Your task to perform on an android device: toggle pop-ups in chrome Image 0: 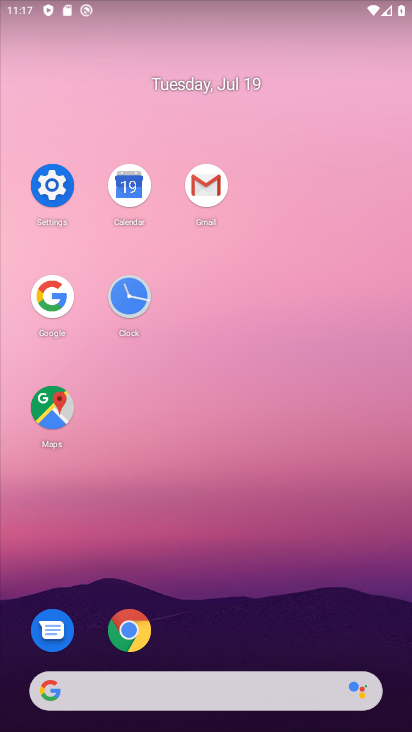
Step 0: click (136, 616)
Your task to perform on an android device: toggle pop-ups in chrome Image 1: 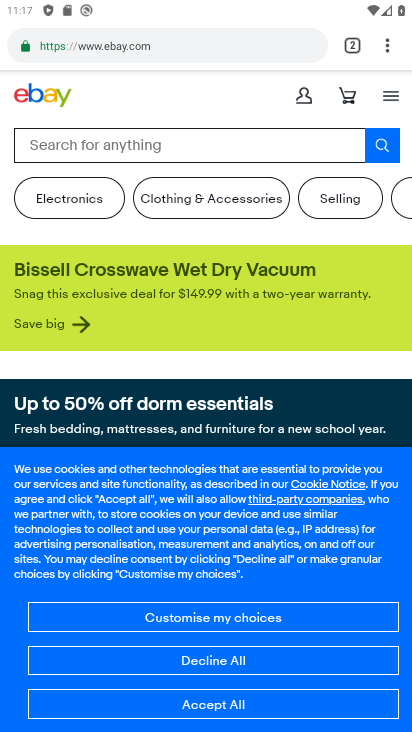
Step 1: click (394, 48)
Your task to perform on an android device: toggle pop-ups in chrome Image 2: 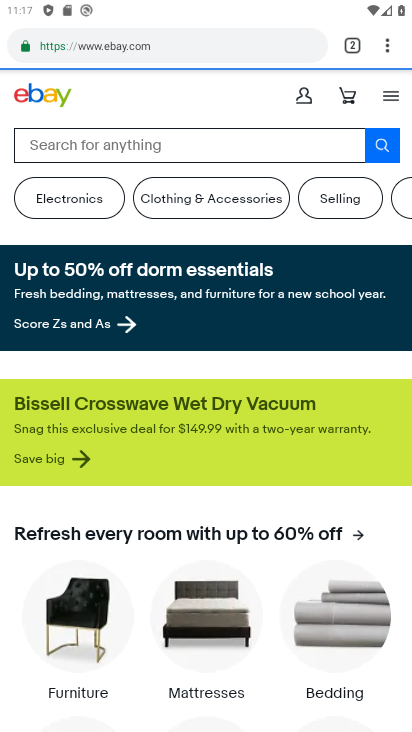
Step 2: click (387, 49)
Your task to perform on an android device: toggle pop-ups in chrome Image 3: 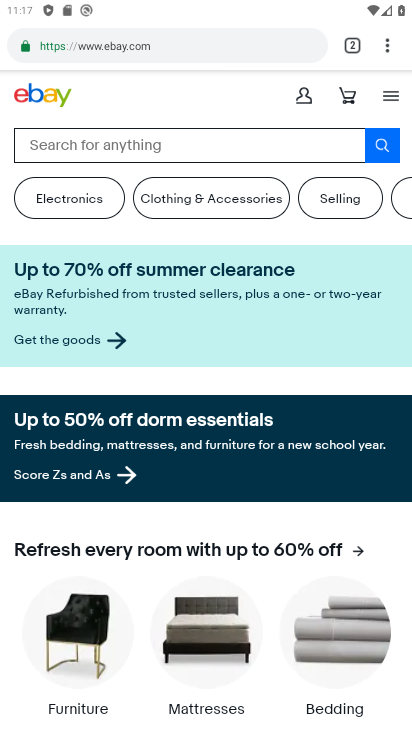
Step 3: click (384, 44)
Your task to perform on an android device: toggle pop-ups in chrome Image 4: 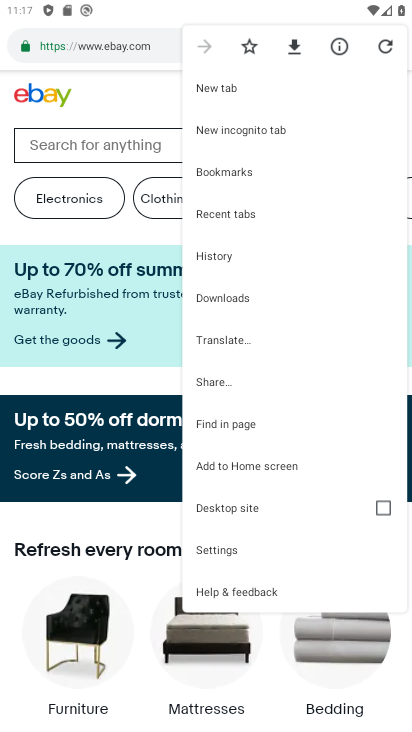
Step 4: click (223, 550)
Your task to perform on an android device: toggle pop-ups in chrome Image 5: 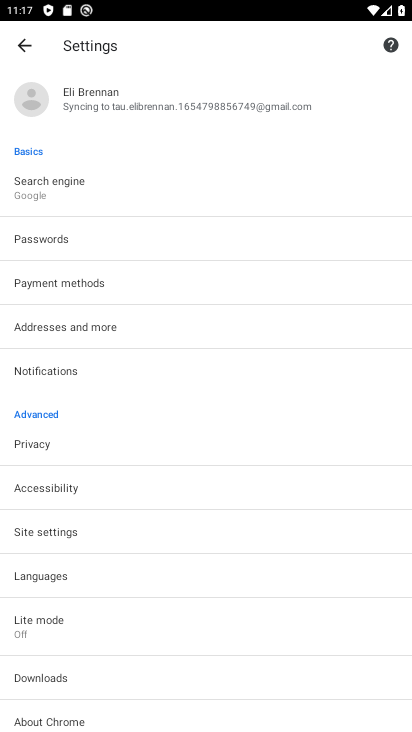
Step 5: drag from (227, 516) to (247, 182)
Your task to perform on an android device: toggle pop-ups in chrome Image 6: 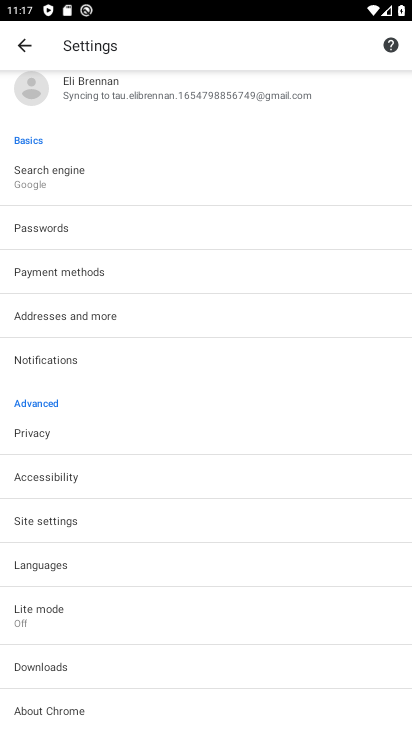
Step 6: click (122, 522)
Your task to perform on an android device: toggle pop-ups in chrome Image 7: 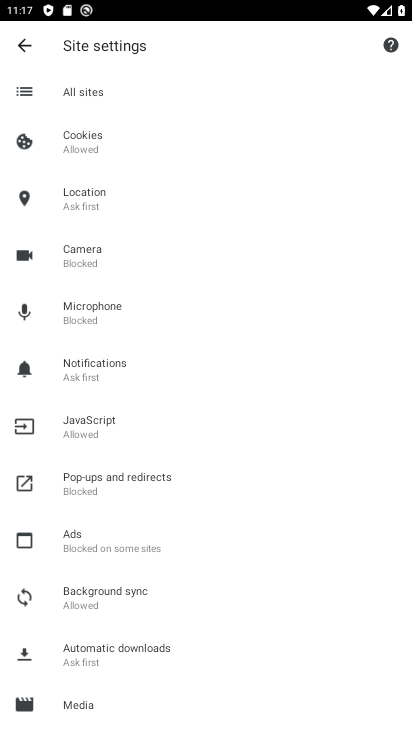
Step 7: click (129, 488)
Your task to perform on an android device: toggle pop-ups in chrome Image 8: 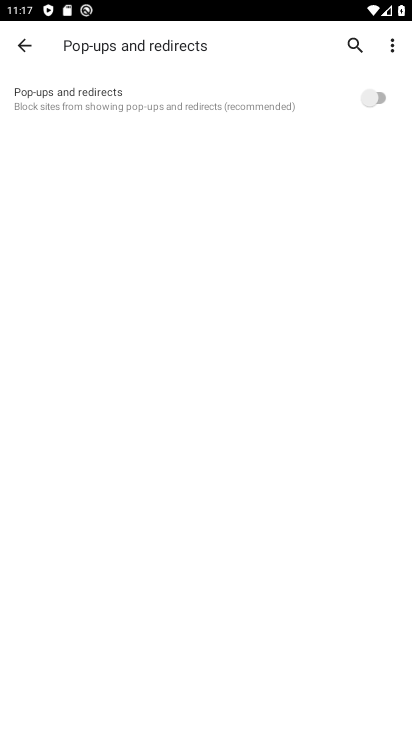
Step 8: click (374, 102)
Your task to perform on an android device: toggle pop-ups in chrome Image 9: 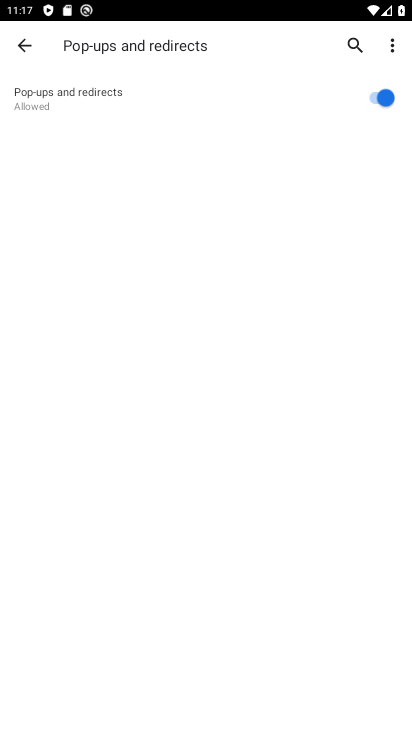
Step 9: task complete